Your task to perform on an android device: When is my next meeting? Image 0: 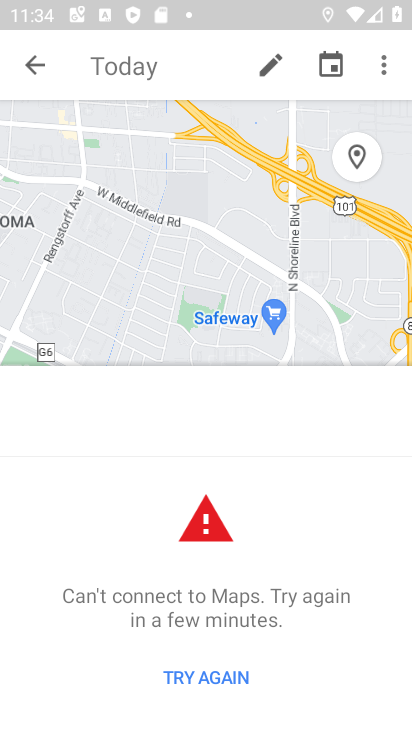
Step 0: press home button
Your task to perform on an android device: When is my next meeting? Image 1: 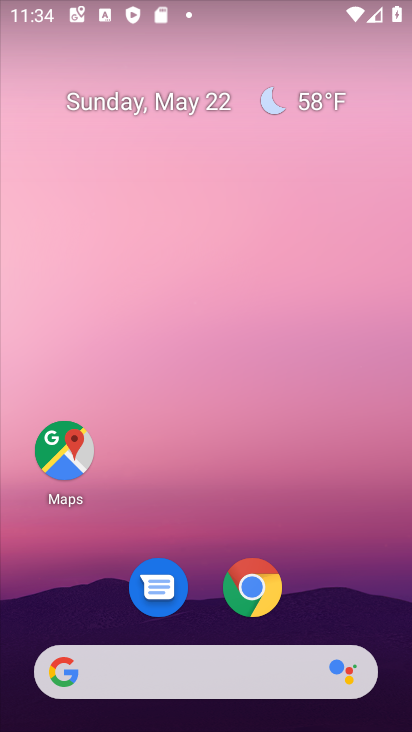
Step 1: drag from (232, 499) to (272, 12)
Your task to perform on an android device: When is my next meeting? Image 2: 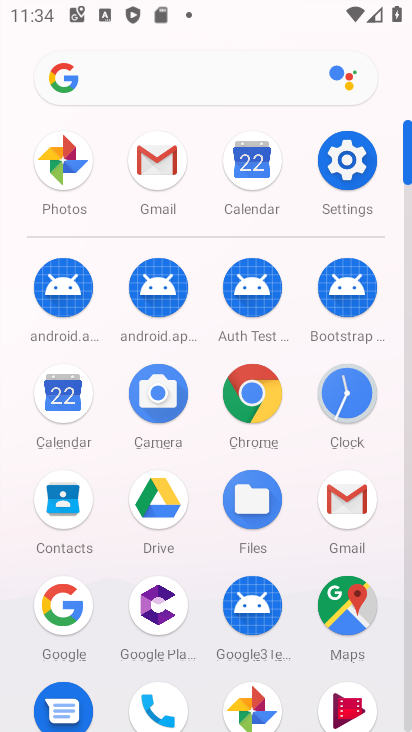
Step 2: click (237, 160)
Your task to perform on an android device: When is my next meeting? Image 3: 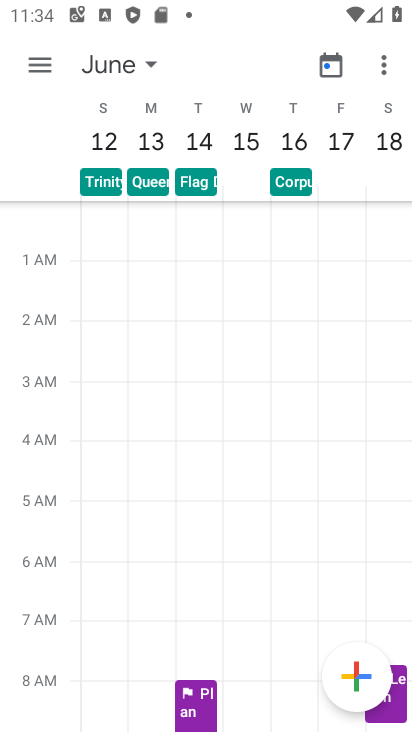
Step 3: click (37, 61)
Your task to perform on an android device: When is my next meeting? Image 4: 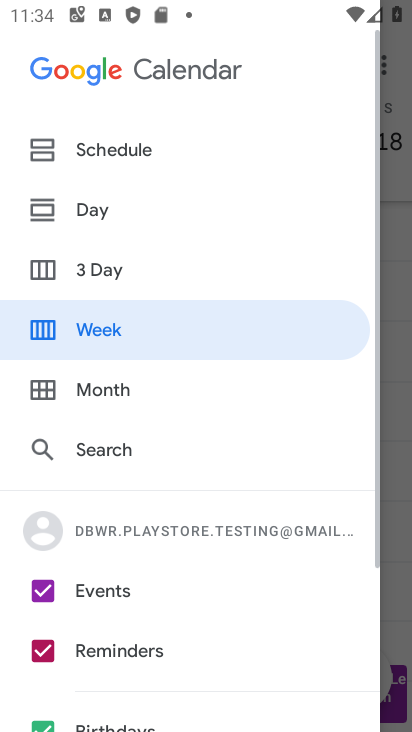
Step 4: click (402, 267)
Your task to perform on an android device: When is my next meeting? Image 5: 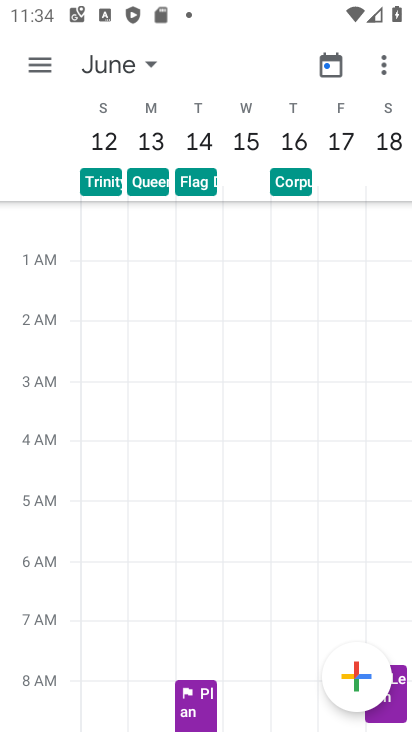
Step 5: drag from (137, 330) to (408, 375)
Your task to perform on an android device: When is my next meeting? Image 6: 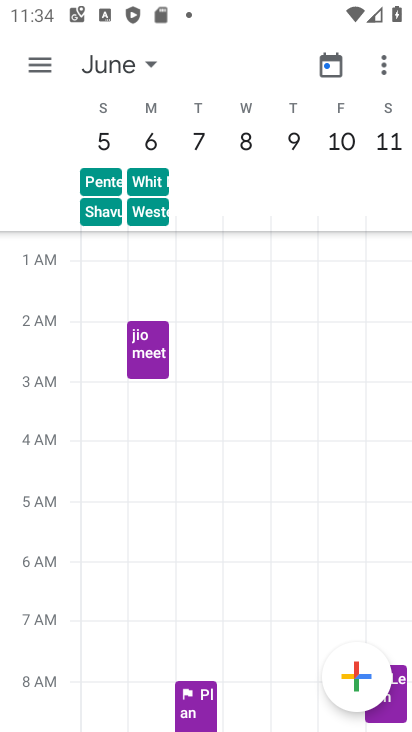
Step 6: drag from (142, 462) to (398, 411)
Your task to perform on an android device: When is my next meeting? Image 7: 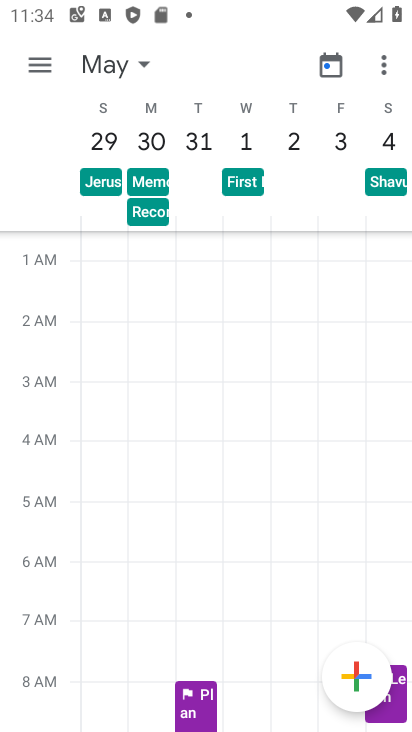
Step 7: drag from (85, 442) to (411, 430)
Your task to perform on an android device: When is my next meeting? Image 8: 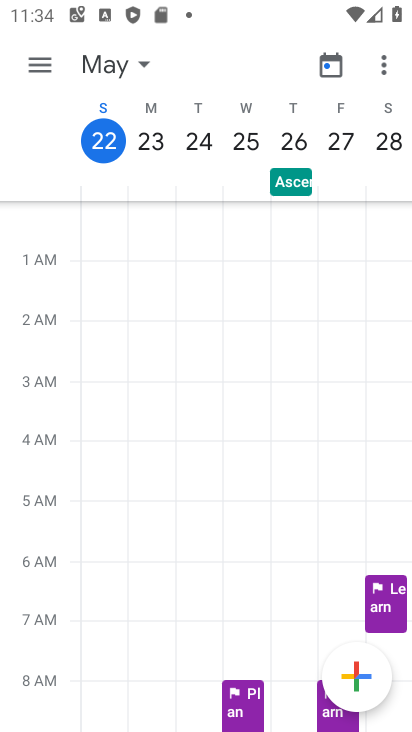
Step 8: click (90, 137)
Your task to perform on an android device: When is my next meeting? Image 9: 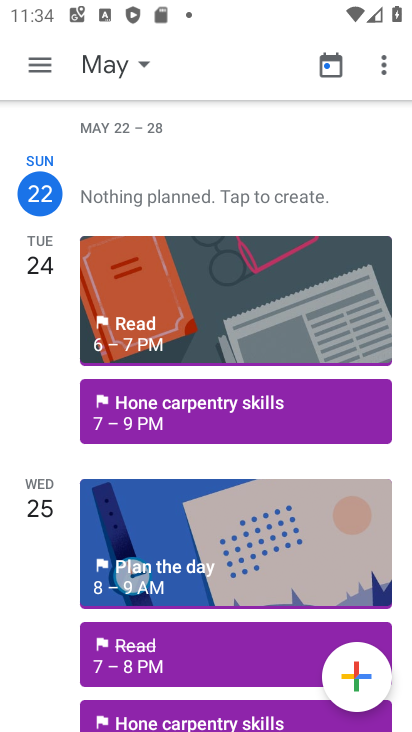
Step 9: task complete